Your task to perform on an android device: turn pop-ups on in chrome Image 0: 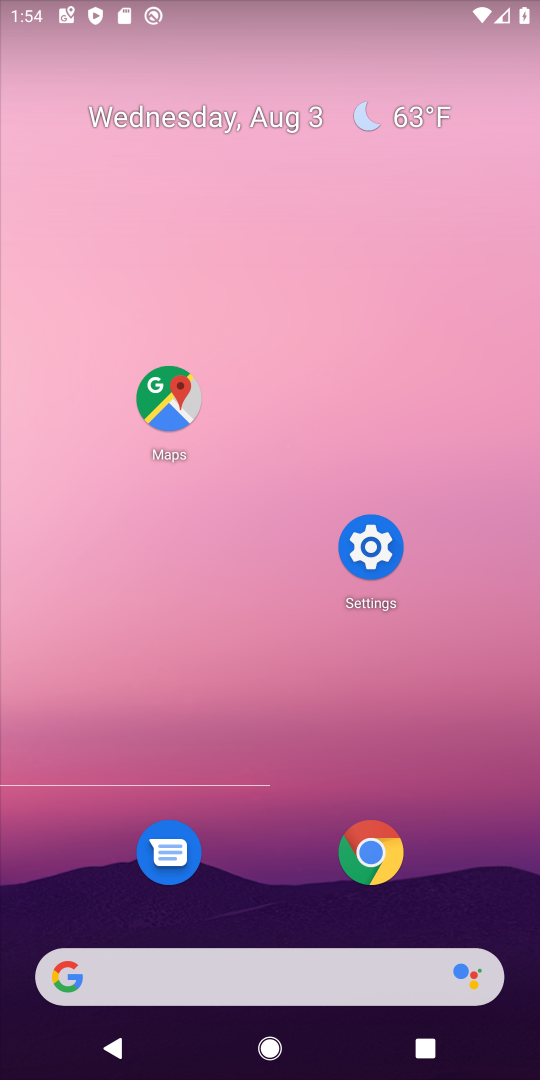
Step 0: click (370, 857)
Your task to perform on an android device: turn pop-ups on in chrome Image 1: 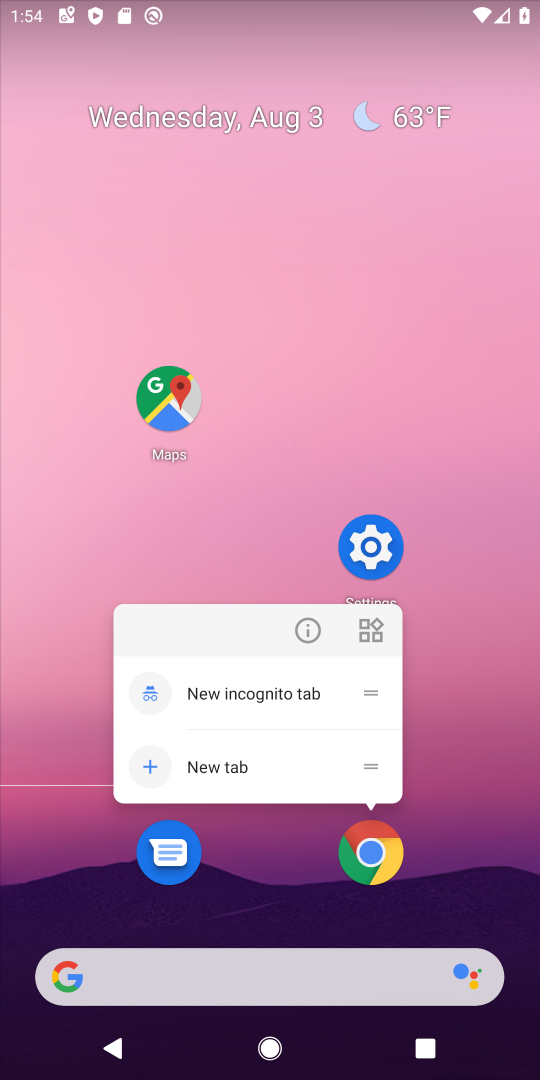
Step 1: click (370, 861)
Your task to perform on an android device: turn pop-ups on in chrome Image 2: 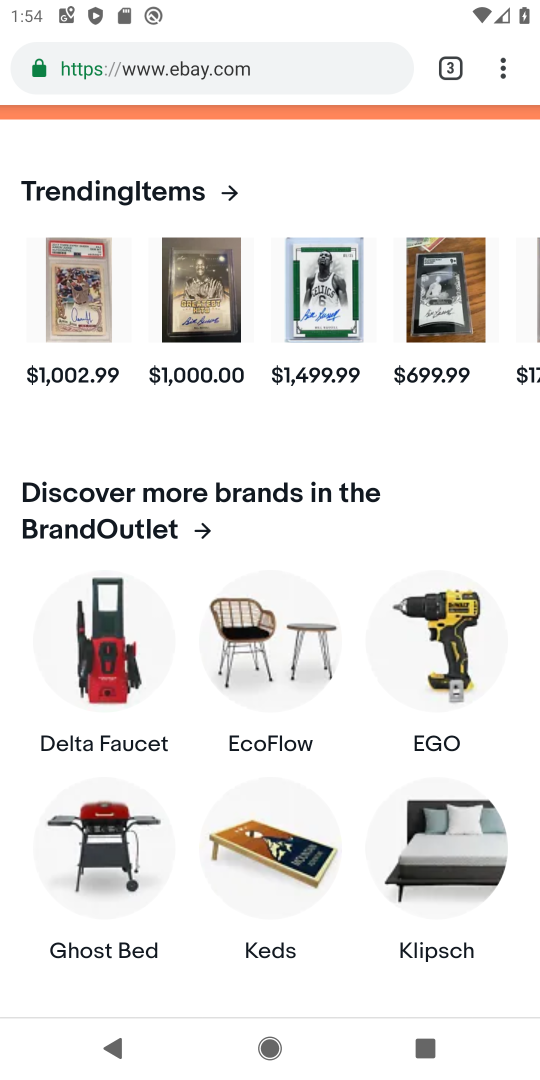
Step 2: drag from (508, 56) to (311, 899)
Your task to perform on an android device: turn pop-ups on in chrome Image 3: 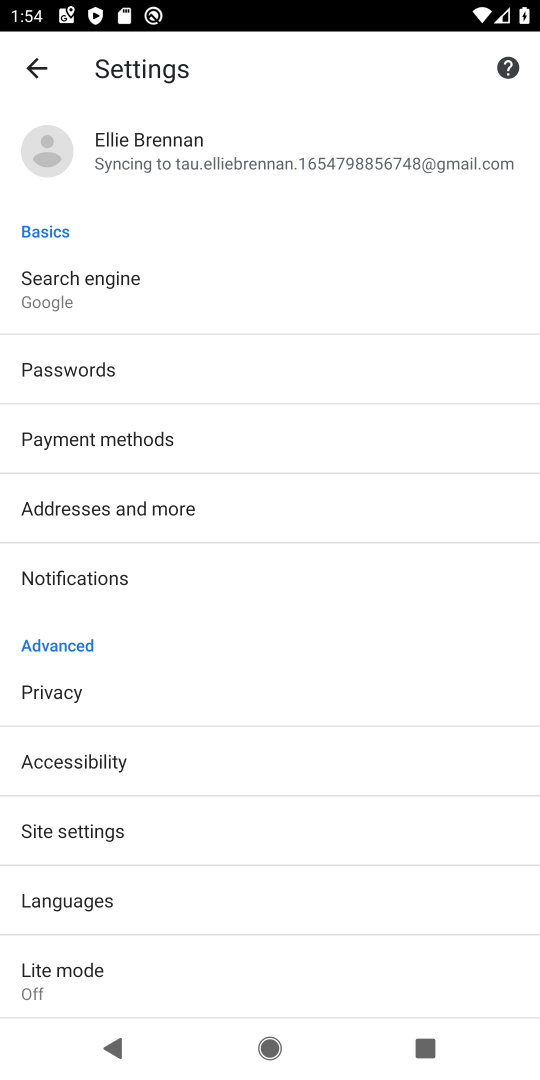
Step 3: click (92, 838)
Your task to perform on an android device: turn pop-ups on in chrome Image 4: 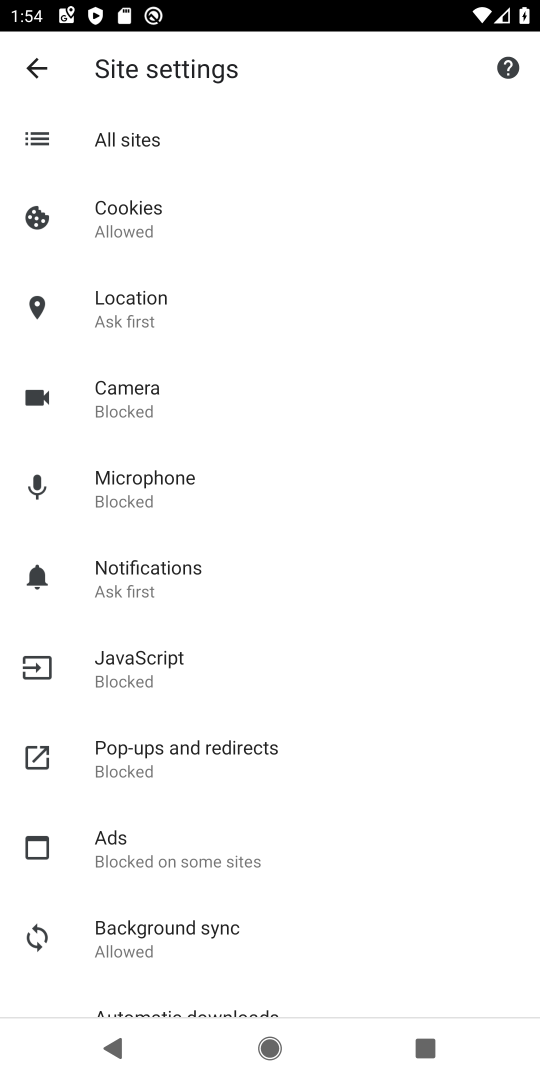
Step 4: click (184, 748)
Your task to perform on an android device: turn pop-ups on in chrome Image 5: 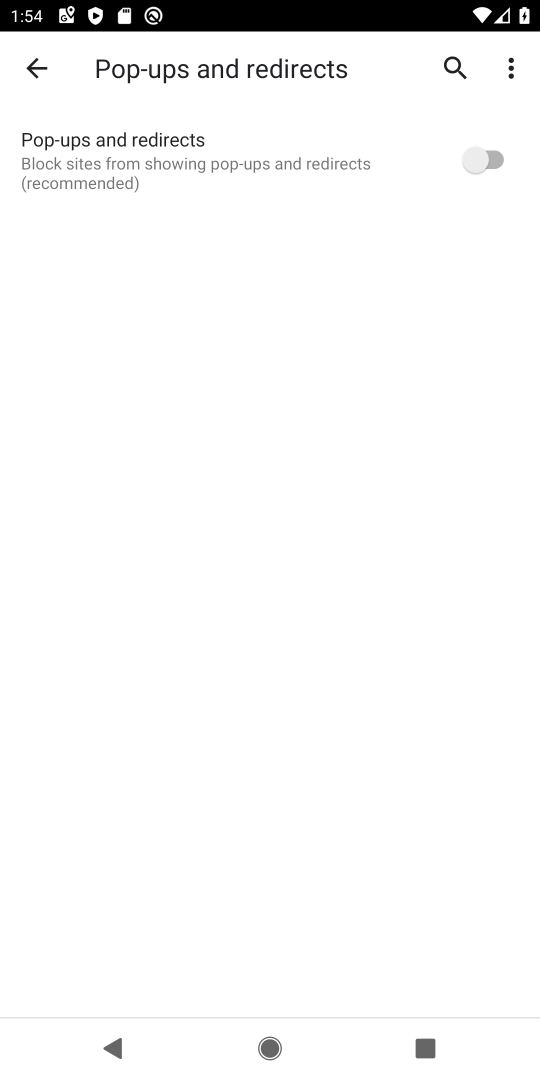
Step 5: click (491, 155)
Your task to perform on an android device: turn pop-ups on in chrome Image 6: 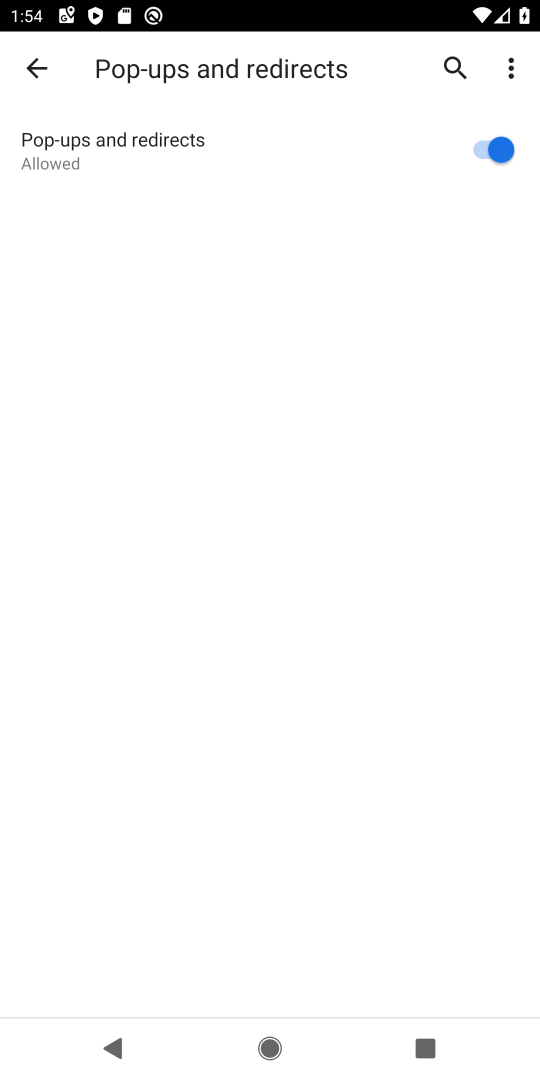
Step 6: task complete